Your task to perform on an android device: Open the calendar app, open the side menu, and click the "Day" option Image 0: 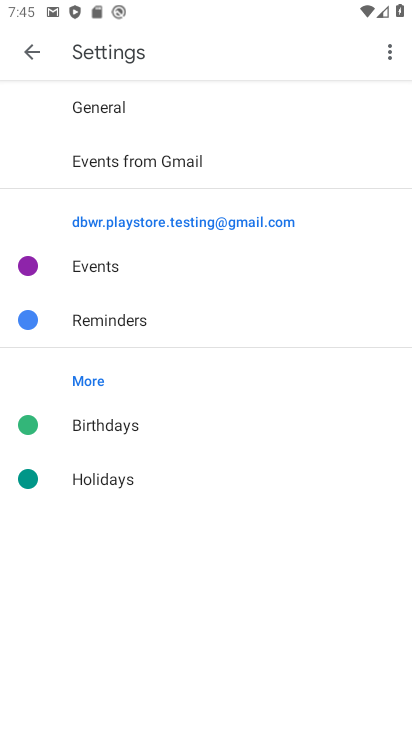
Step 0: press home button
Your task to perform on an android device: Open the calendar app, open the side menu, and click the "Day" option Image 1: 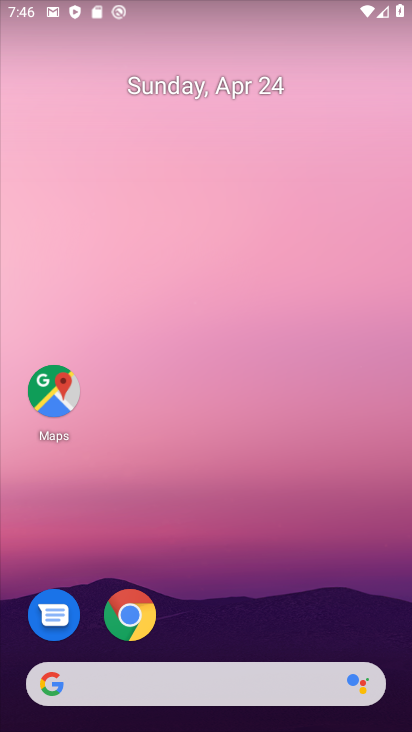
Step 1: drag from (230, 494) to (293, 98)
Your task to perform on an android device: Open the calendar app, open the side menu, and click the "Day" option Image 2: 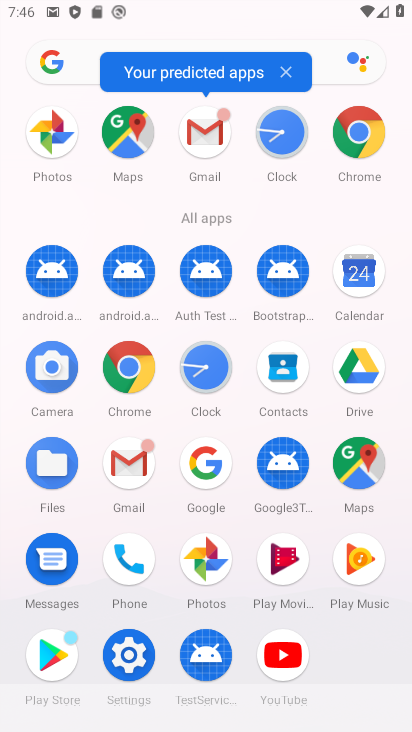
Step 2: click (354, 266)
Your task to perform on an android device: Open the calendar app, open the side menu, and click the "Day" option Image 3: 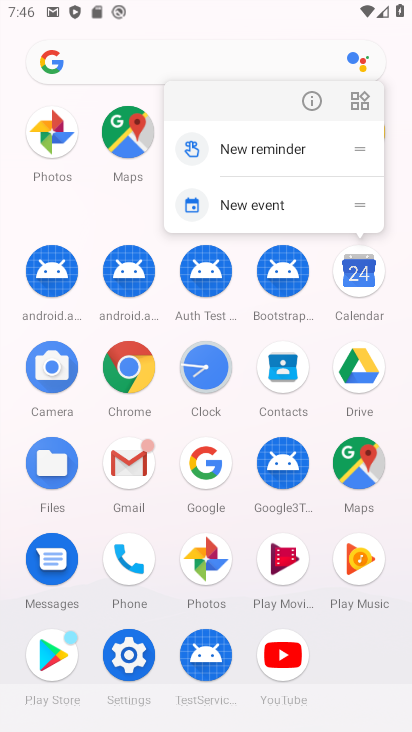
Step 3: click (354, 266)
Your task to perform on an android device: Open the calendar app, open the side menu, and click the "Day" option Image 4: 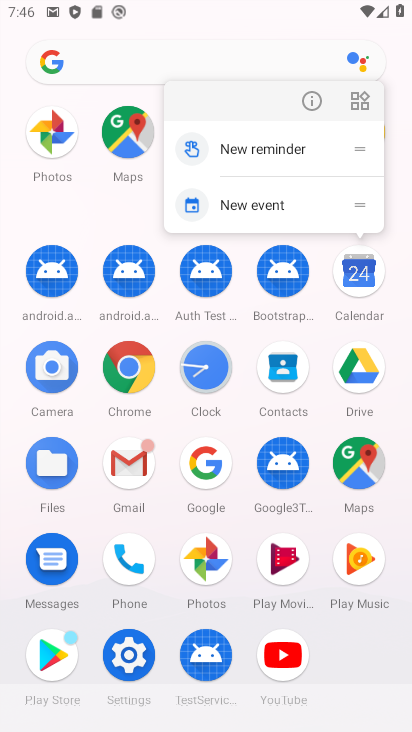
Step 4: click (354, 266)
Your task to perform on an android device: Open the calendar app, open the side menu, and click the "Day" option Image 5: 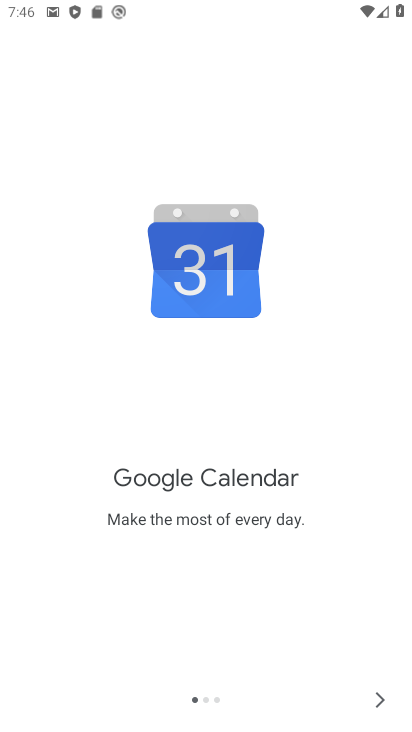
Step 5: click (379, 703)
Your task to perform on an android device: Open the calendar app, open the side menu, and click the "Day" option Image 6: 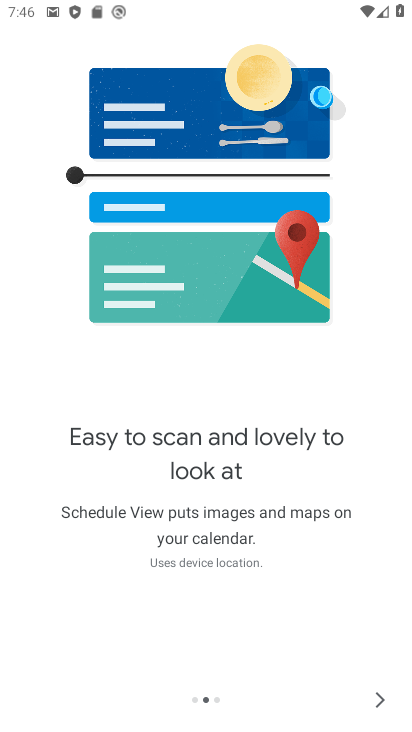
Step 6: click (376, 701)
Your task to perform on an android device: Open the calendar app, open the side menu, and click the "Day" option Image 7: 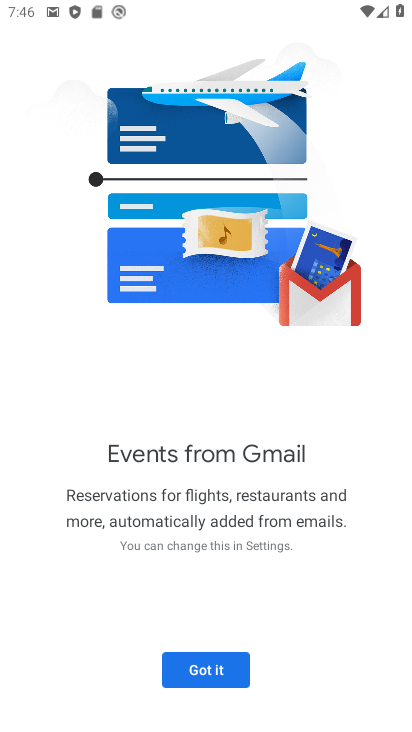
Step 7: click (233, 673)
Your task to perform on an android device: Open the calendar app, open the side menu, and click the "Day" option Image 8: 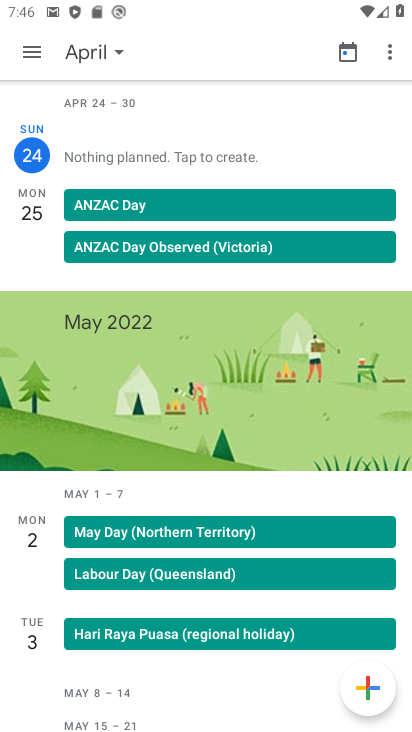
Step 8: click (29, 59)
Your task to perform on an android device: Open the calendar app, open the side menu, and click the "Day" option Image 9: 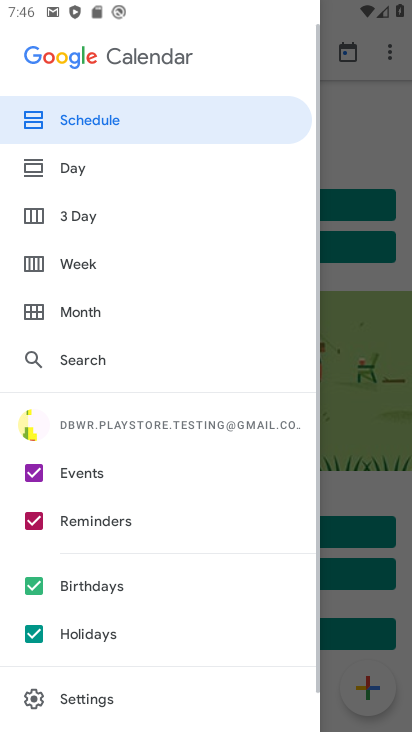
Step 9: click (105, 168)
Your task to perform on an android device: Open the calendar app, open the side menu, and click the "Day" option Image 10: 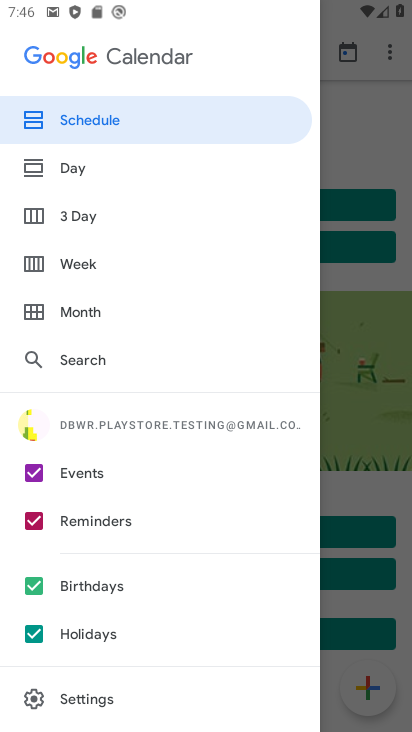
Step 10: click (101, 165)
Your task to perform on an android device: Open the calendar app, open the side menu, and click the "Day" option Image 11: 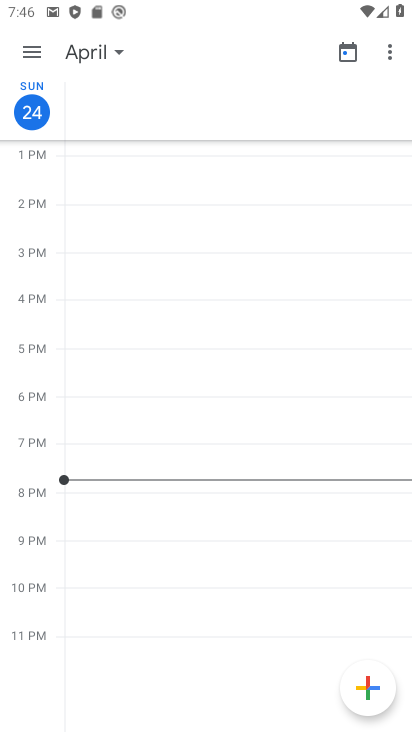
Step 11: task complete